Your task to perform on an android device: Open Android settings Image 0: 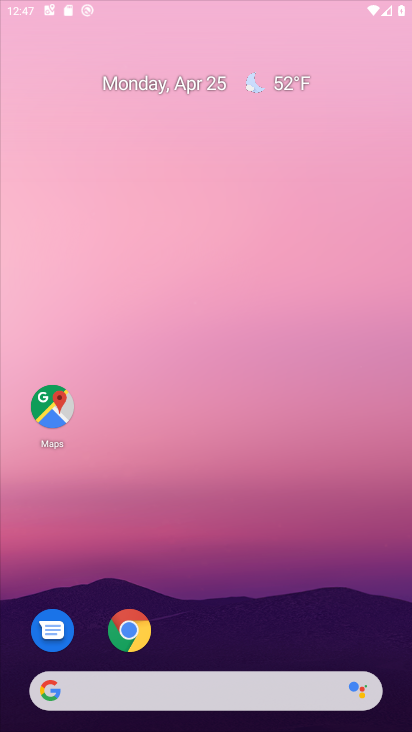
Step 0: click (186, 234)
Your task to perform on an android device: Open Android settings Image 1: 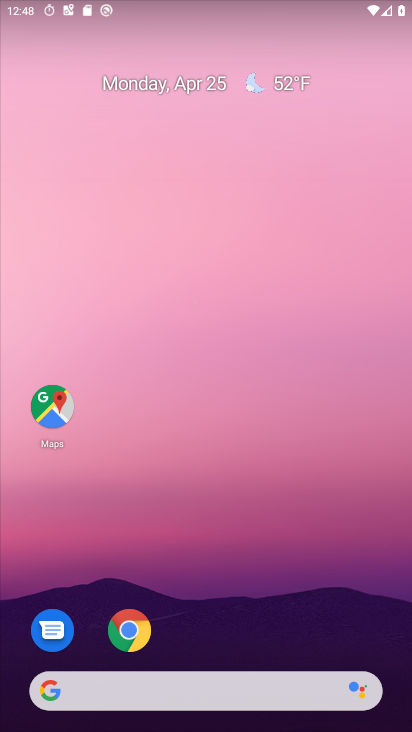
Step 1: drag from (213, 595) to (233, 384)
Your task to perform on an android device: Open Android settings Image 2: 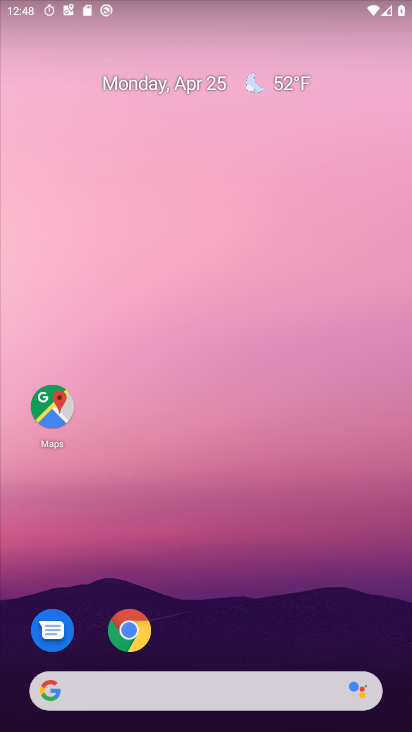
Step 2: drag from (199, 597) to (325, 67)
Your task to perform on an android device: Open Android settings Image 3: 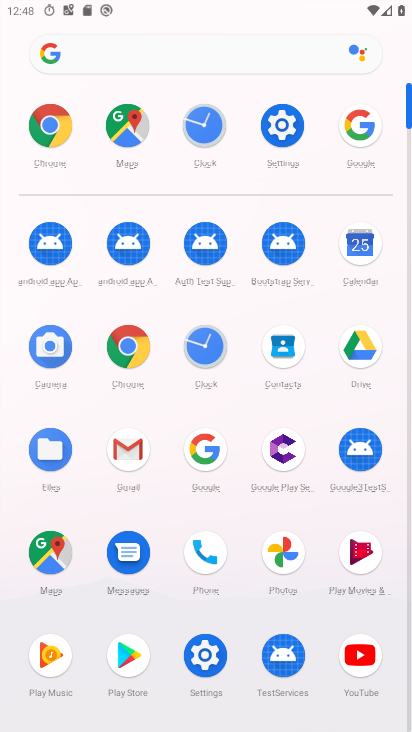
Step 3: drag from (187, 589) to (266, 235)
Your task to perform on an android device: Open Android settings Image 4: 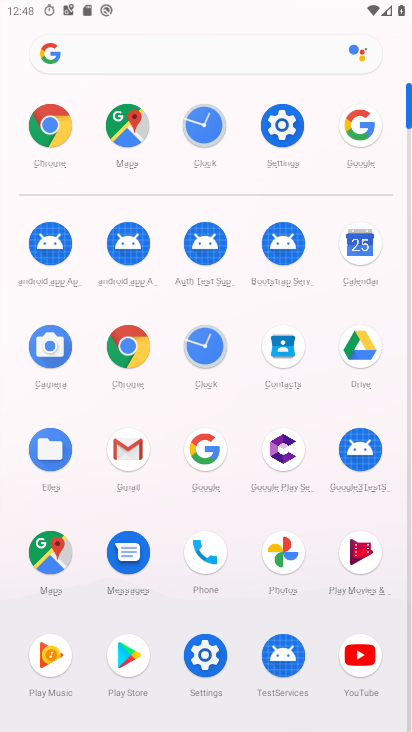
Step 4: click (210, 658)
Your task to perform on an android device: Open Android settings Image 5: 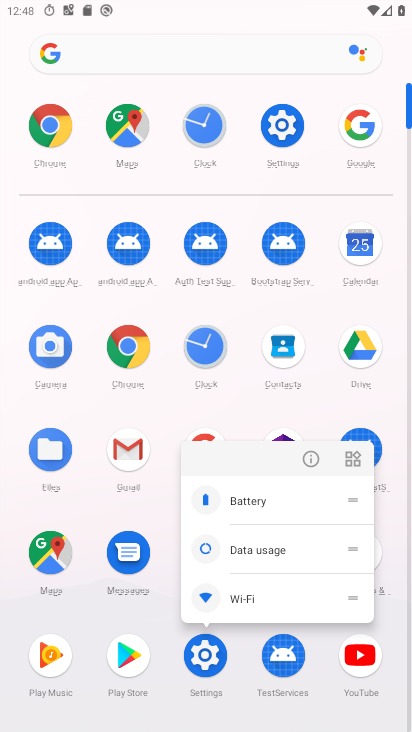
Step 5: click (308, 460)
Your task to perform on an android device: Open Android settings Image 6: 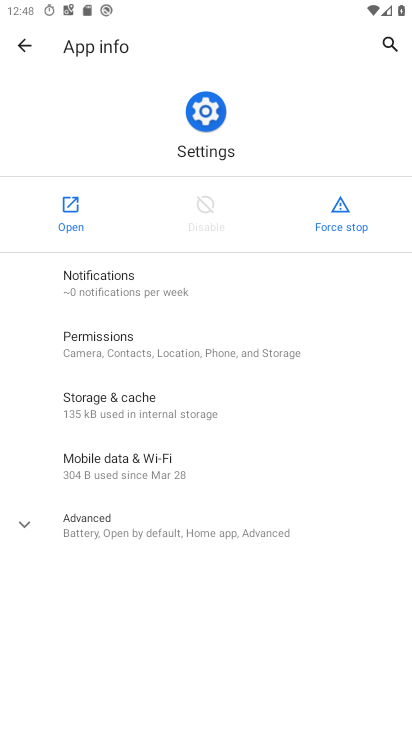
Step 6: click (78, 208)
Your task to perform on an android device: Open Android settings Image 7: 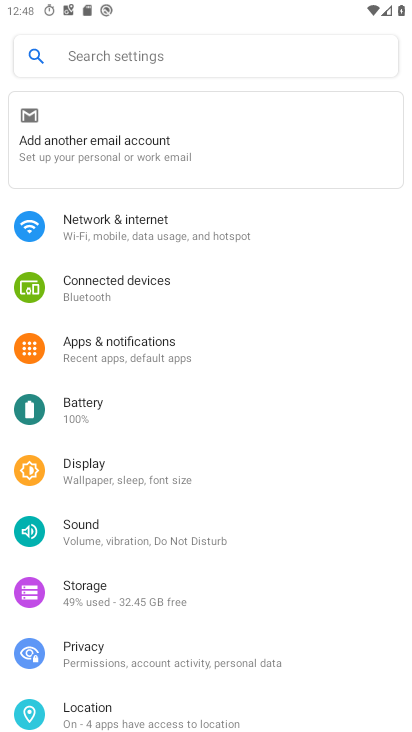
Step 7: drag from (191, 546) to (260, 273)
Your task to perform on an android device: Open Android settings Image 8: 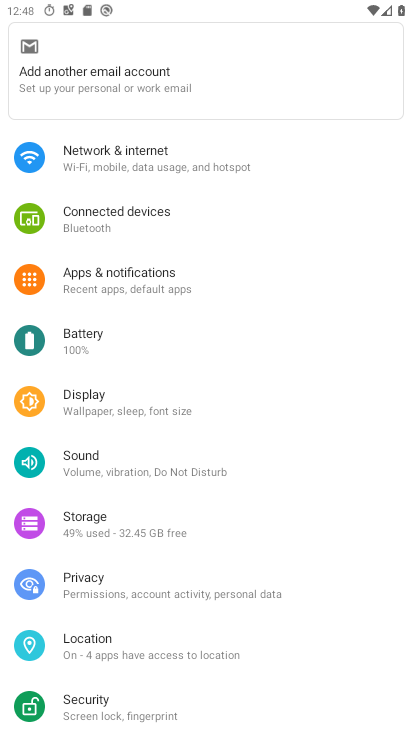
Step 8: drag from (179, 561) to (337, 158)
Your task to perform on an android device: Open Android settings Image 9: 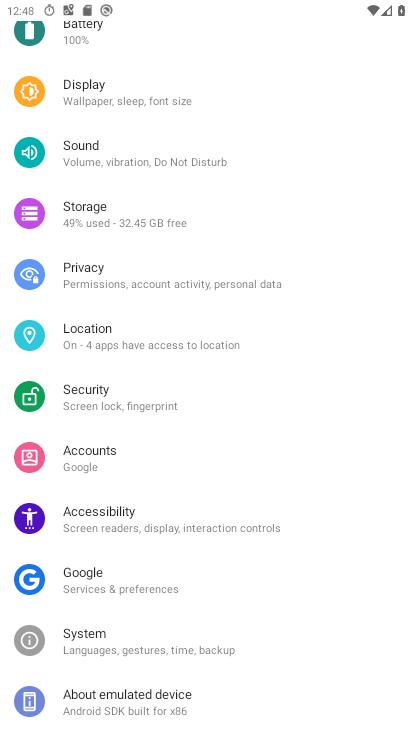
Step 9: click (155, 678)
Your task to perform on an android device: Open Android settings Image 10: 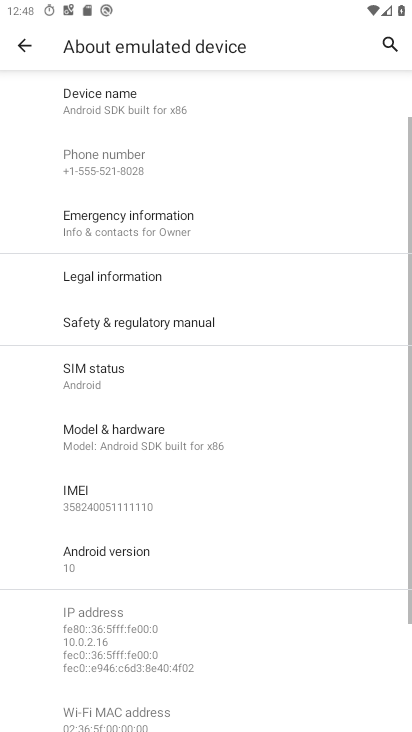
Step 10: drag from (191, 478) to (278, 179)
Your task to perform on an android device: Open Android settings Image 11: 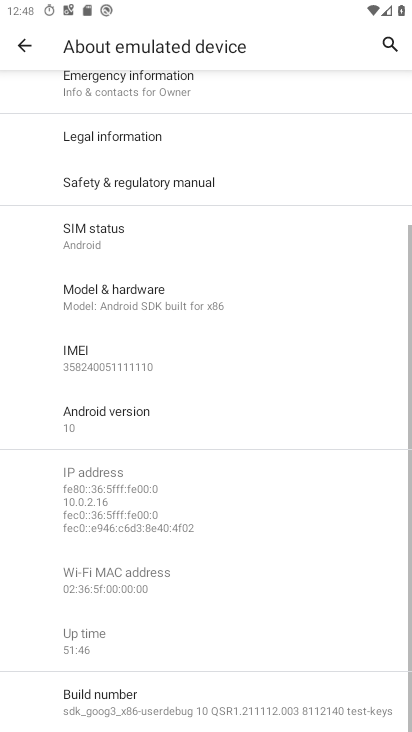
Step 11: click (128, 419)
Your task to perform on an android device: Open Android settings Image 12: 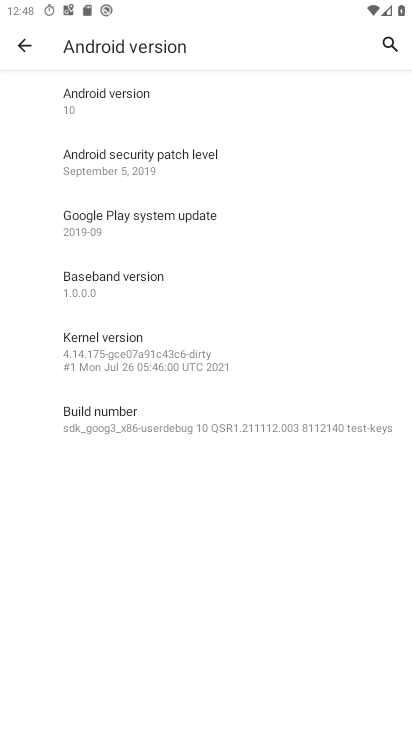
Step 12: drag from (198, 447) to (231, 316)
Your task to perform on an android device: Open Android settings Image 13: 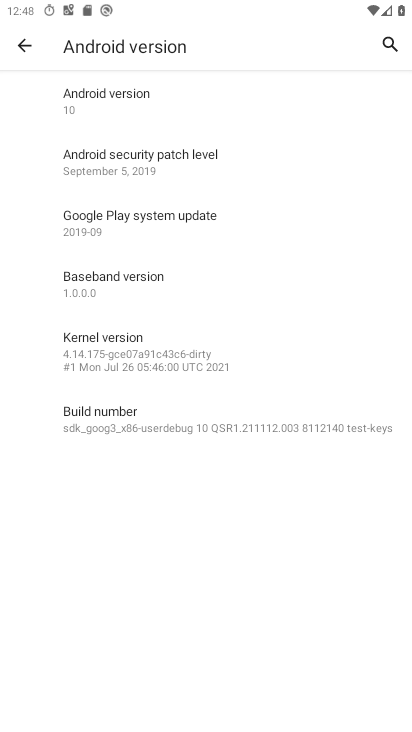
Step 13: click (222, 99)
Your task to perform on an android device: Open Android settings Image 14: 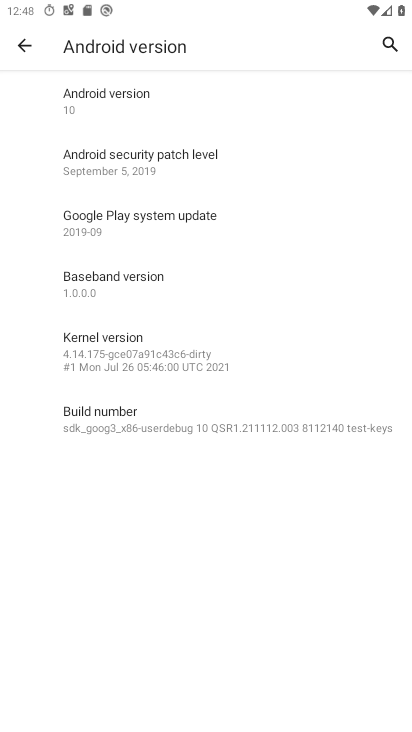
Step 14: task complete